Your task to perform on an android device: Open accessibility settings Image 0: 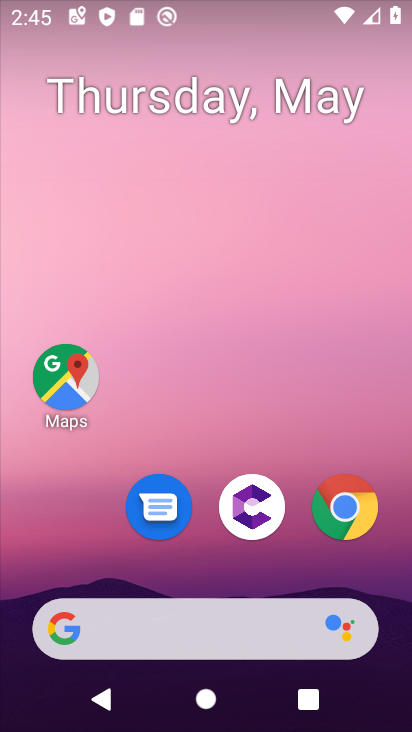
Step 0: press home button
Your task to perform on an android device: Open accessibility settings Image 1: 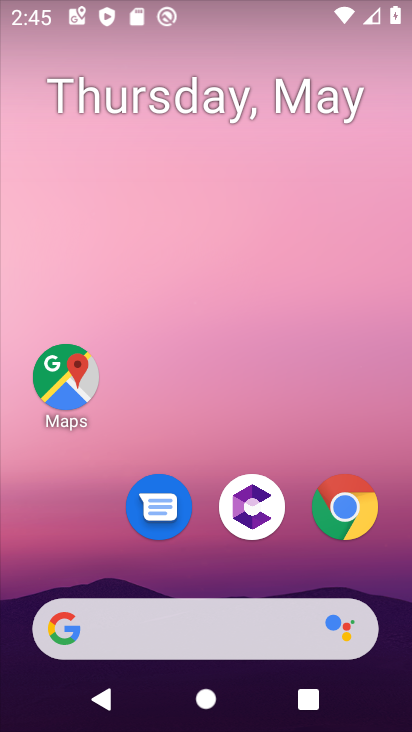
Step 1: drag from (337, 573) to (327, 227)
Your task to perform on an android device: Open accessibility settings Image 2: 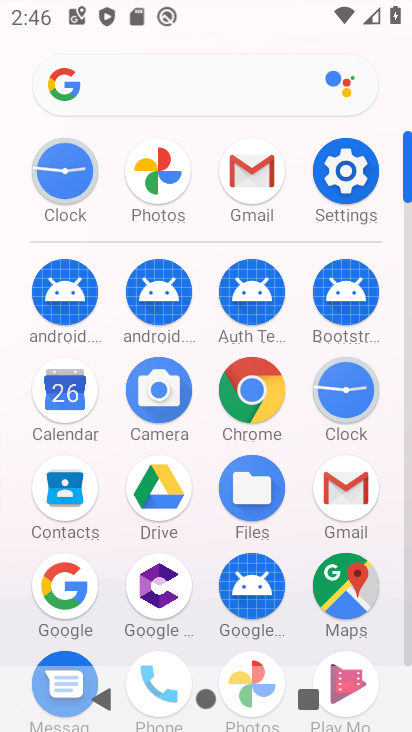
Step 2: click (346, 204)
Your task to perform on an android device: Open accessibility settings Image 3: 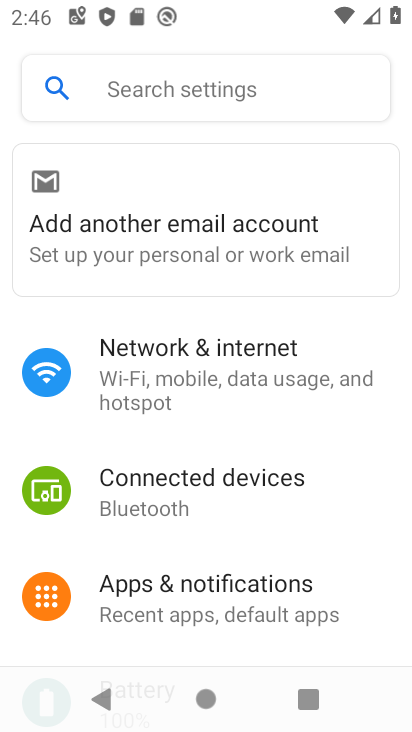
Step 3: drag from (353, 632) to (316, 220)
Your task to perform on an android device: Open accessibility settings Image 4: 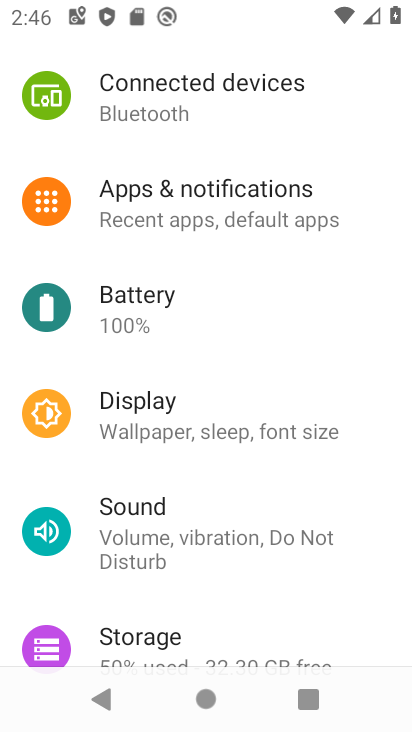
Step 4: drag from (316, 593) to (288, 218)
Your task to perform on an android device: Open accessibility settings Image 5: 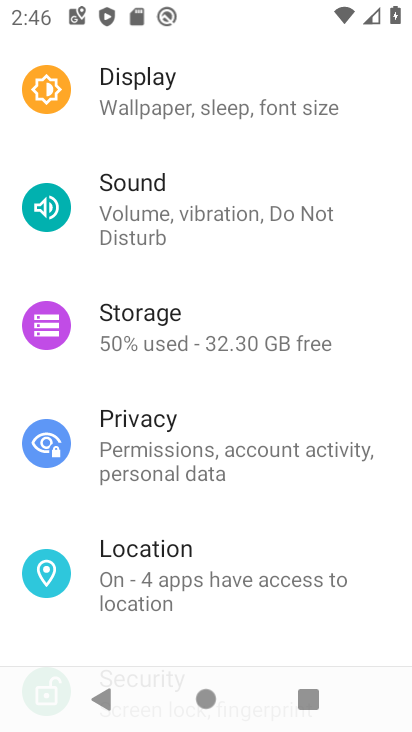
Step 5: drag from (315, 538) to (283, 145)
Your task to perform on an android device: Open accessibility settings Image 6: 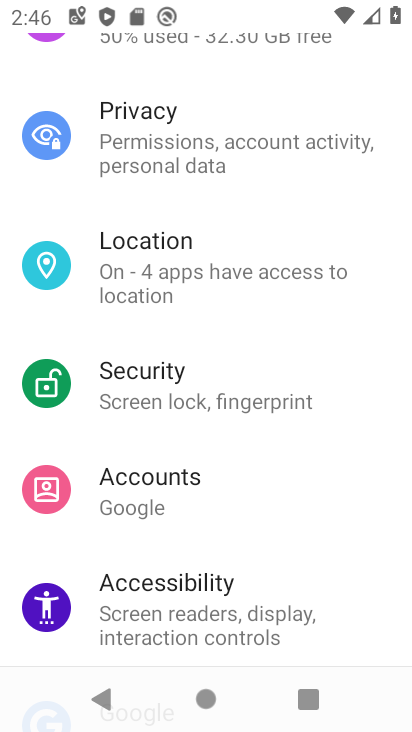
Step 6: click (175, 576)
Your task to perform on an android device: Open accessibility settings Image 7: 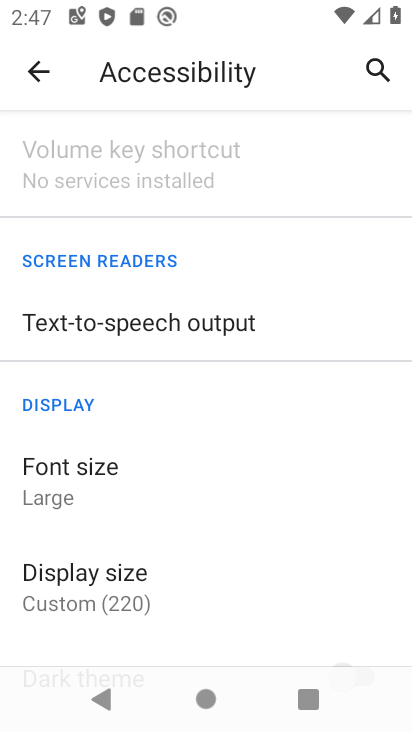
Step 7: task complete